Your task to perform on an android device: show emergency info Image 0: 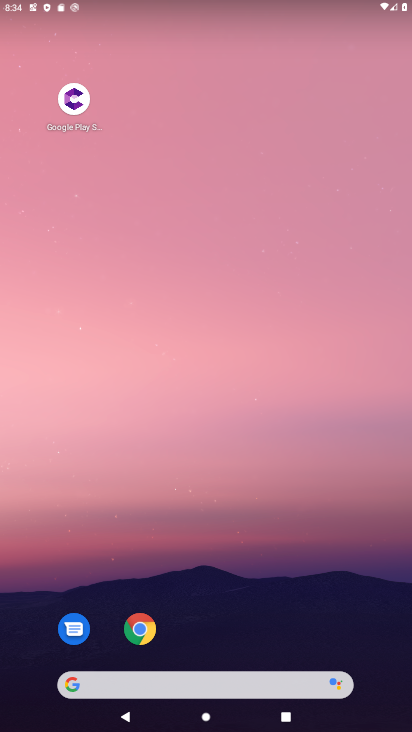
Step 0: drag from (192, 6) to (218, 537)
Your task to perform on an android device: show emergency info Image 1: 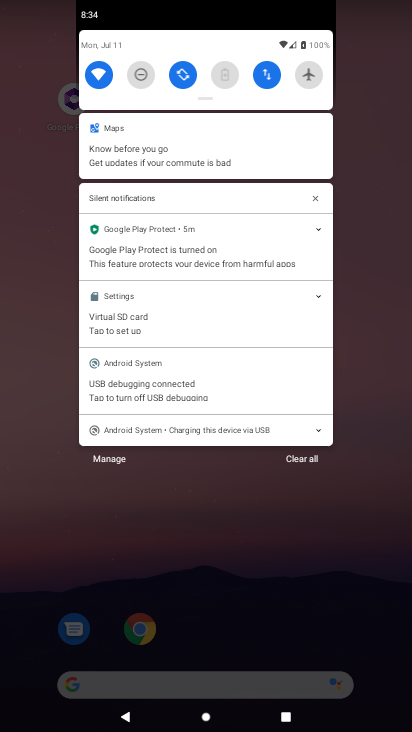
Step 1: drag from (211, 43) to (166, 634)
Your task to perform on an android device: show emergency info Image 2: 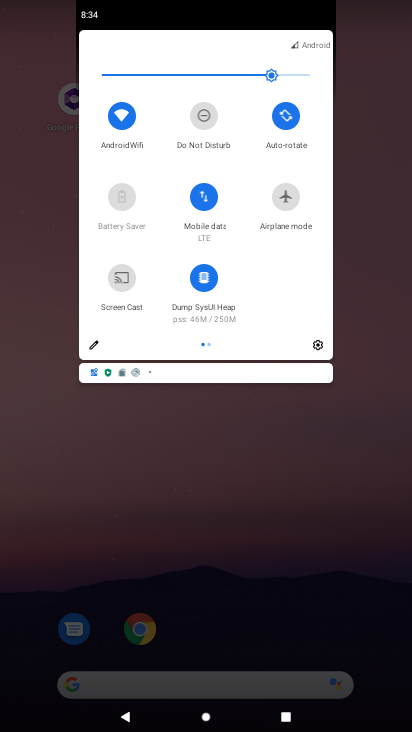
Step 2: click (313, 345)
Your task to perform on an android device: show emergency info Image 3: 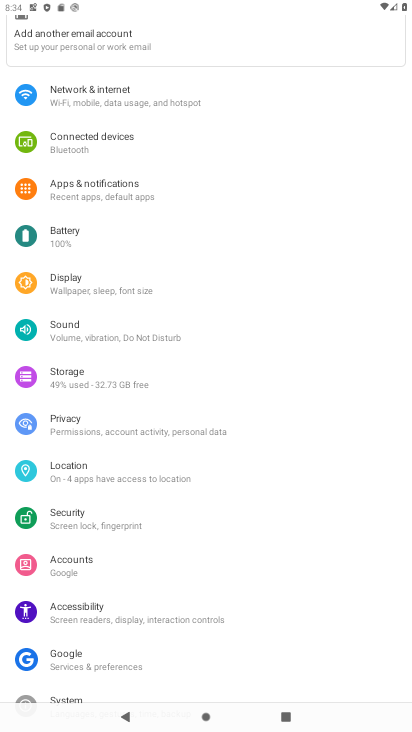
Step 3: drag from (138, 651) to (228, 31)
Your task to perform on an android device: show emergency info Image 4: 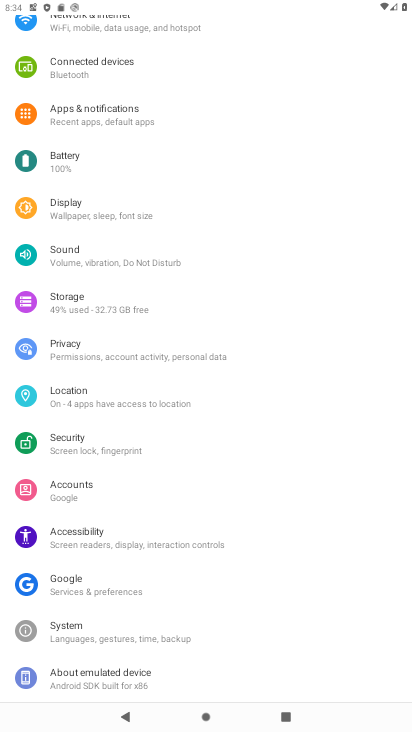
Step 4: click (201, 681)
Your task to perform on an android device: show emergency info Image 5: 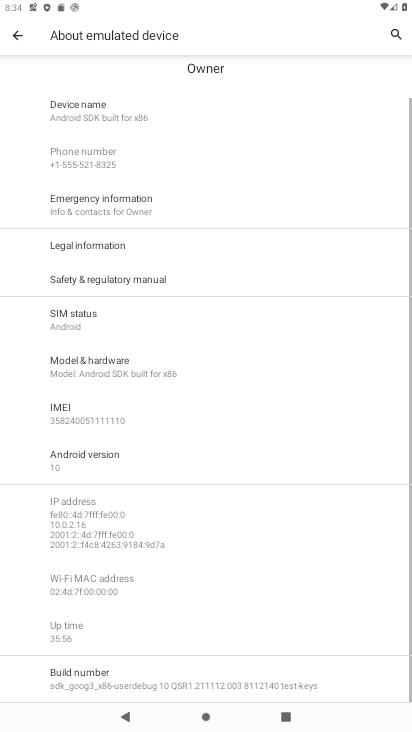
Step 5: click (191, 195)
Your task to perform on an android device: show emergency info Image 6: 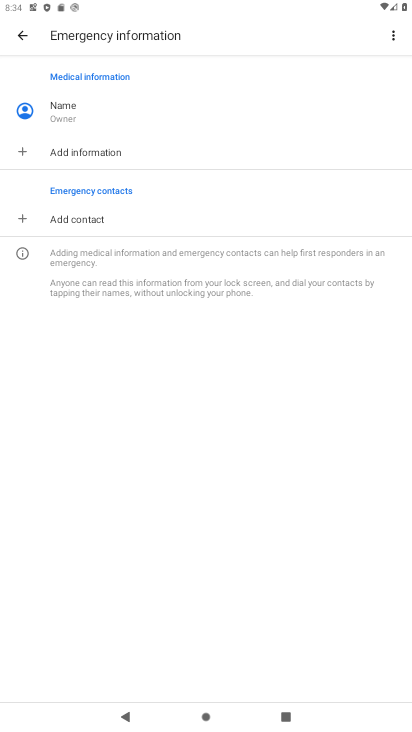
Step 6: task complete